Your task to perform on an android device: Open calendar and show me the third week of next month Image 0: 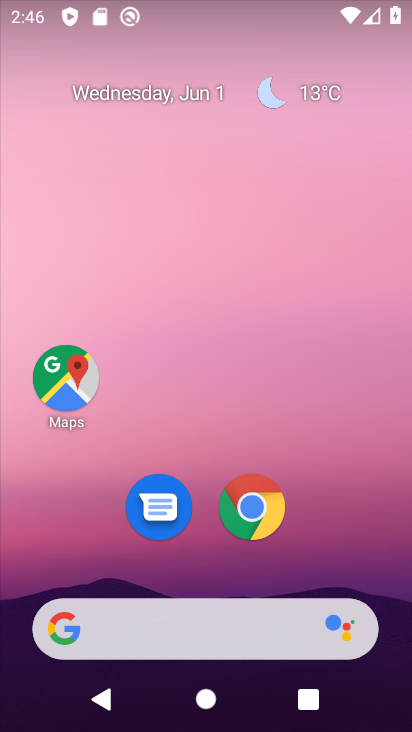
Step 0: drag from (340, 526) to (113, 141)
Your task to perform on an android device: Open calendar and show me the third week of next month Image 1: 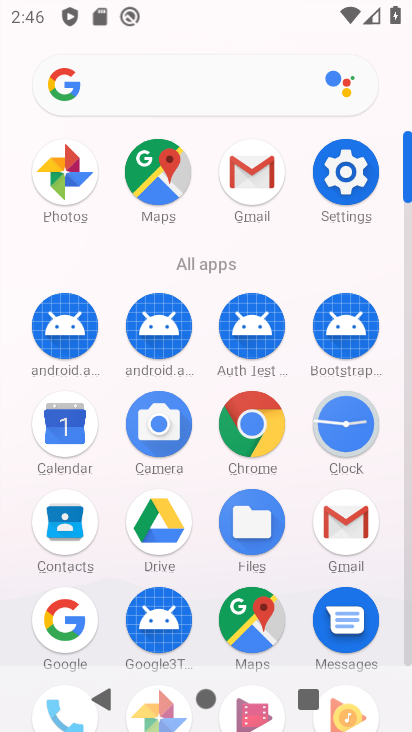
Step 1: click (59, 435)
Your task to perform on an android device: Open calendar and show me the third week of next month Image 2: 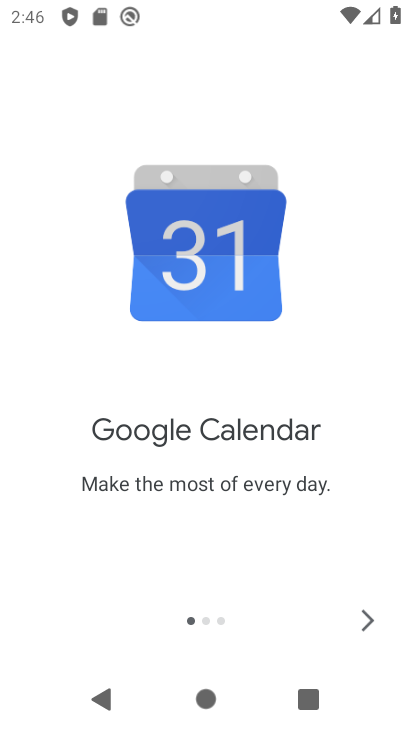
Step 2: click (367, 614)
Your task to perform on an android device: Open calendar and show me the third week of next month Image 3: 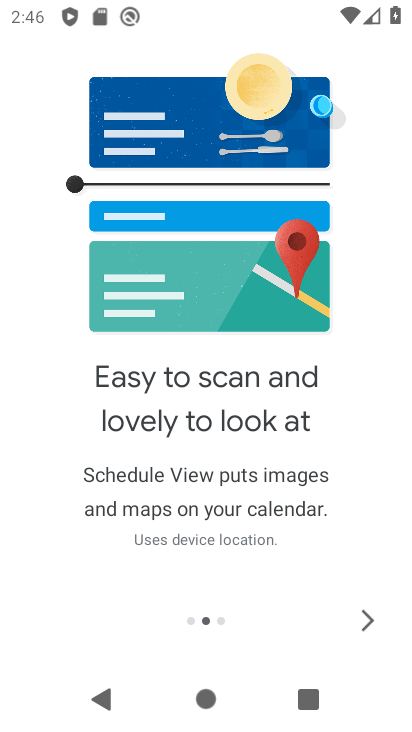
Step 3: click (367, 614)
Your task to perform on an android device: Open calendar and show me the third week of next month Image 4: 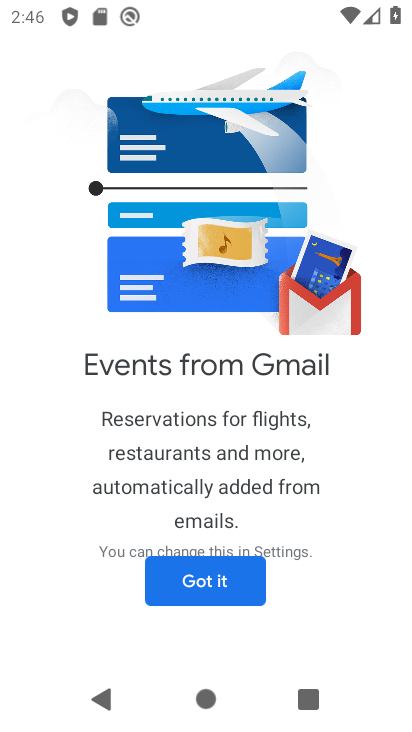
Step 4: click (236, 582)
Your task to perform on an android device: Open calendar and show me the third week of next month Image 5: 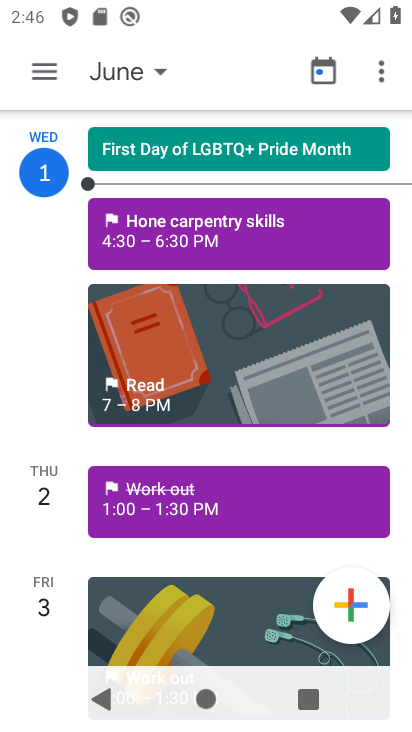
Step 5: click (127, 70)
Your task to perform on an android device: Open calendar and show me the third week of next month Image 6: 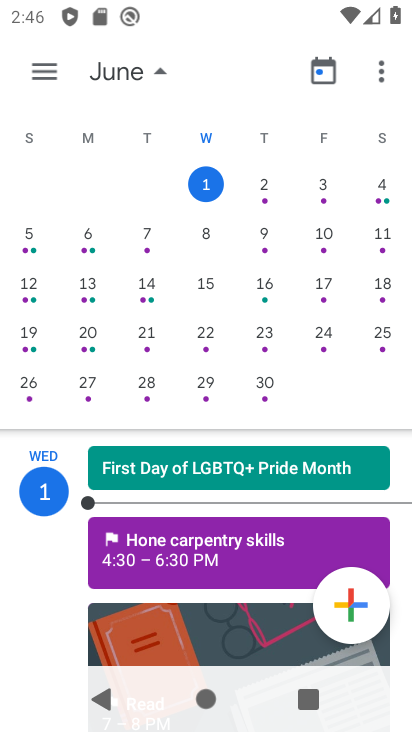
Step 6: drag from (360, 239) to (14, 259)
Your task to perform on an android device: Open calendar and show me the third week of next month Image 7: 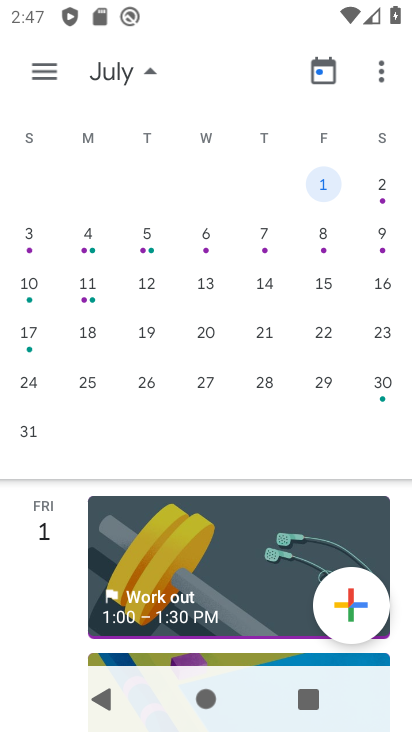
Step 7: click (28, 336)
Your task to perform on an android device: Open calendar and show me the third week of next month Image 8: 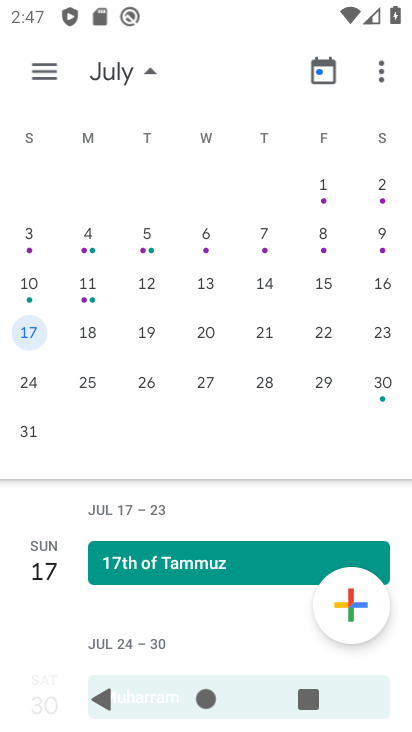
Step 8: click (41, 80)
Your task to perform on an android device: Open calendar and show me the third week of next month Image 9: 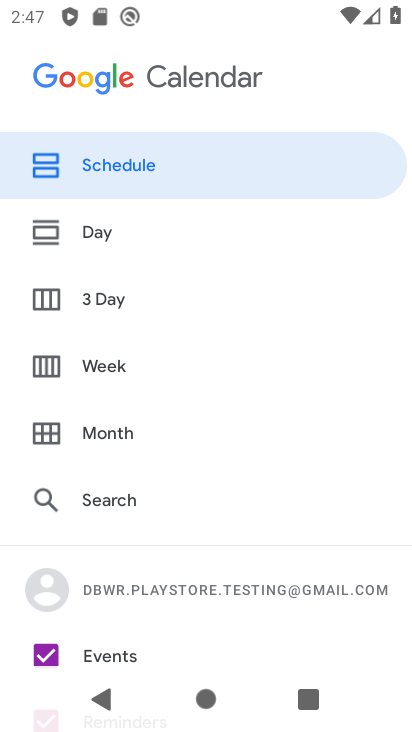
Step 9: click (61, 365)
Your task to perform on an android device: Open calendar and show me the third week of next month Image 10: 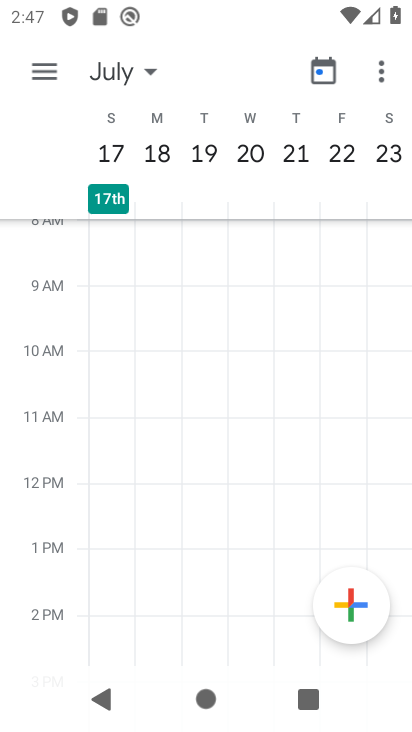
Step 10: task complete